Your task to perform on an android device: toggle pop-ups in chrome Image 0: 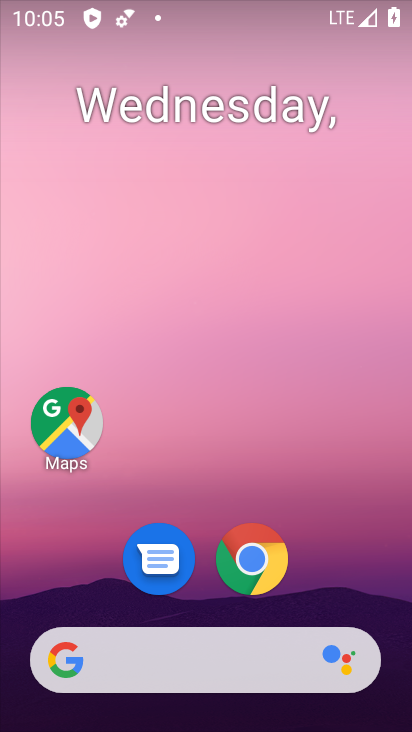
Step 0: drag from (329, 447) to (248, 10)
Your task to perform on an android device: toggle pop-ups in chrome Image 1: 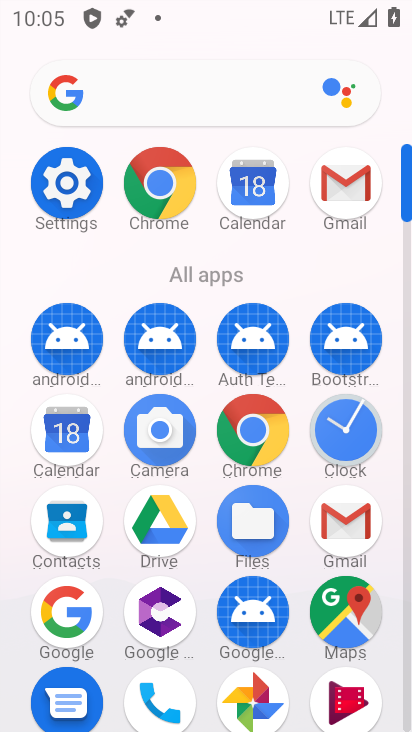
Step 1: click (185, 189)
Your task to perform on an android device: toggle pop-ups in chrome Image 2: 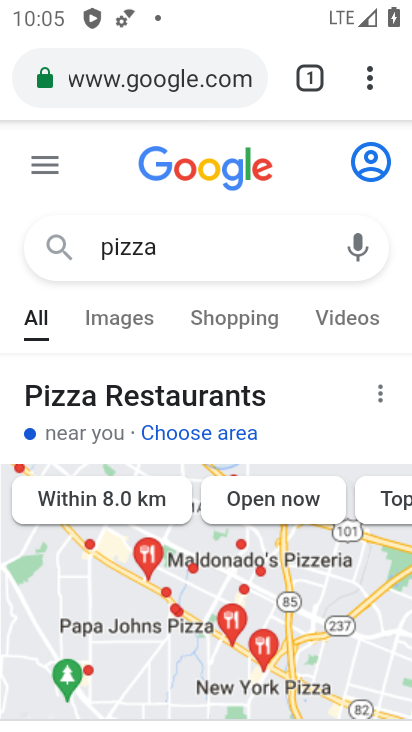
Step 2: drag from (382, 87) to (92, 615)
Your task to perform on an android device: toggle pop-ups in chrome Image 3: 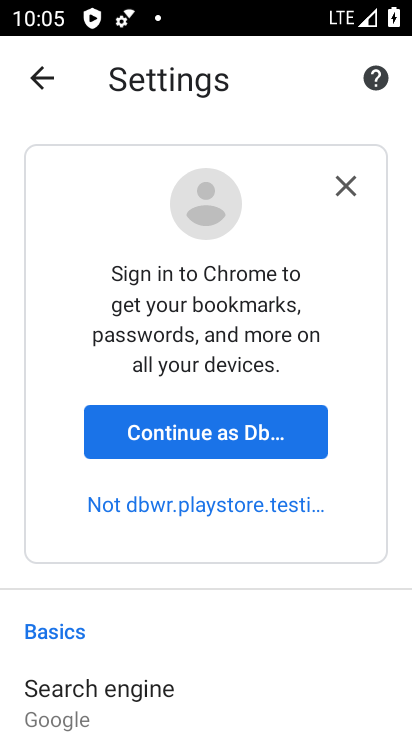
Step 3: drag from (116, 675) to (43, 151)
Your task to perform on an android device: toggle pop-ups in chrome Image 4: 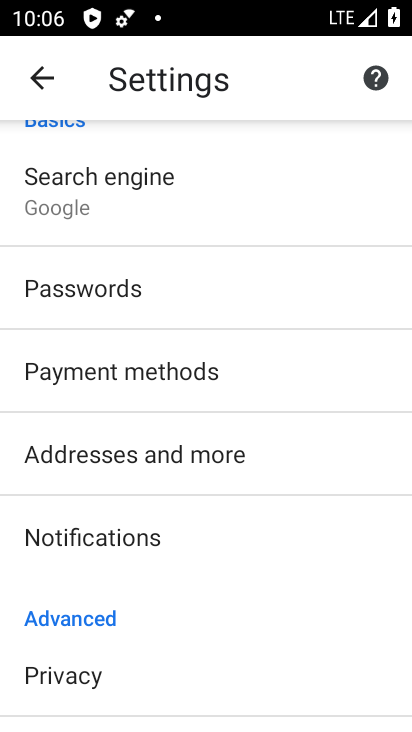
Step 4: drag from (224, 631) to (253, 147)
Your task to perform on an android device: toggle pop-ups in chrome Image 5: 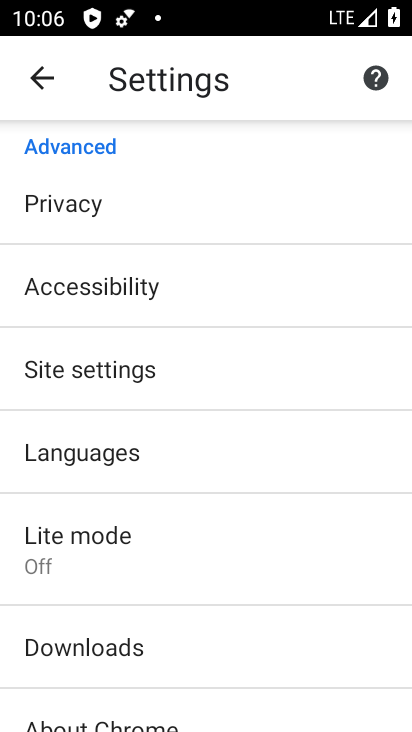
Step 5: click (112, 348)
Your task to perform on an android device: toggle pop-ups in chrome Image 6: 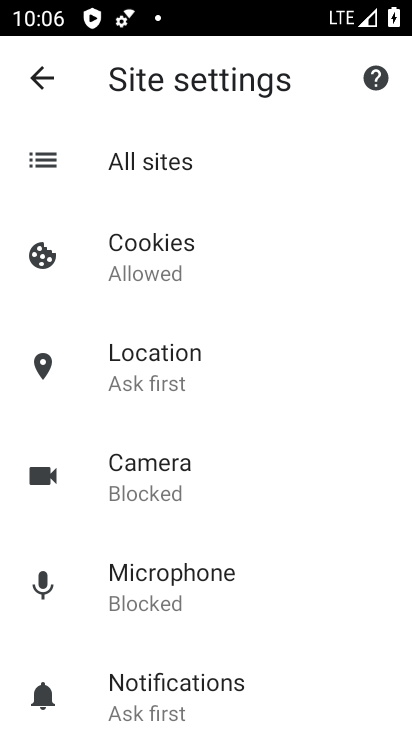
Step 6: drag from (266, 588) to (164, 96)
Your task to perform on an android device: toggle pop-ups in chrome Image 7: 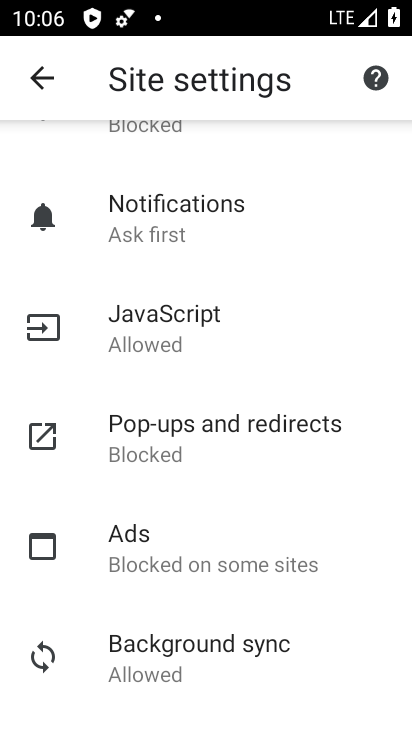
Step 7: click (186, 456)
Your task to perform on an android device: toggle pop-ups in chrome Image 8: 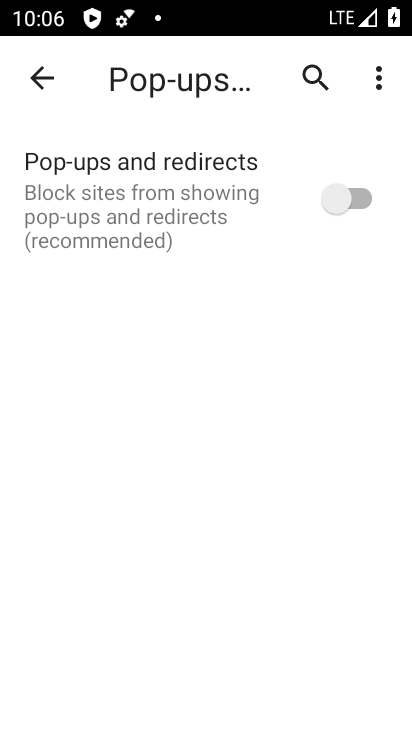
Step 8: click (350, 207)
Your task to perform on an android device: toggle pop-ups in chrome Image 9: 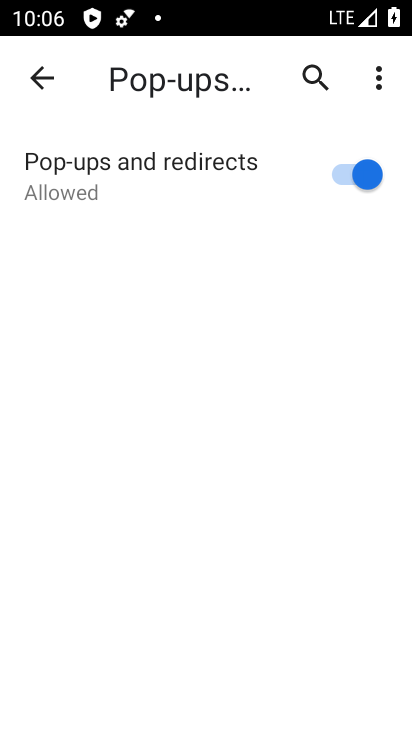
Step 9: task complete